Your task to perform on an android device: check google app version Image 0: 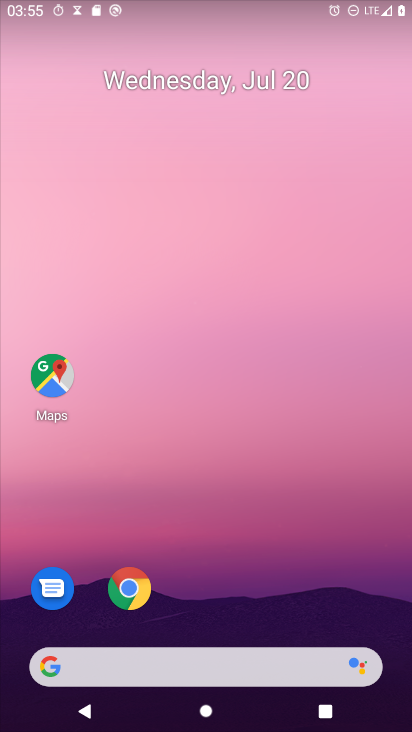
Step 0: drag from (226, 644) to (88, 63)
Your task to perform on an android device: check google app version Image 1: 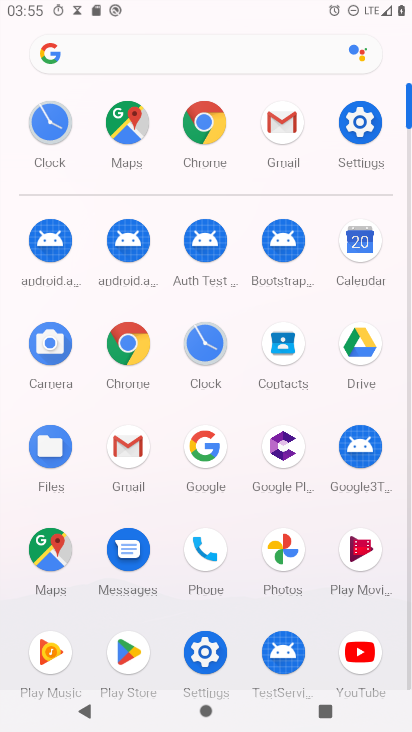
Step 1: click (206, 443)
Your task to perform on an android device: check google app version Image 2: 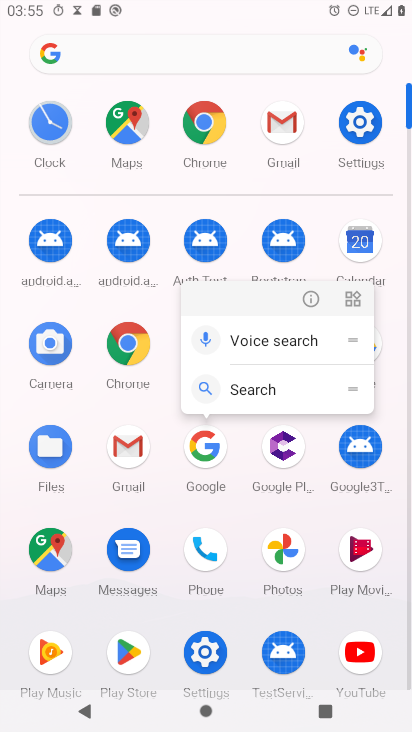
Step 2: click (305, 303)
Your task to perform on an android device: check google app version Image 3: 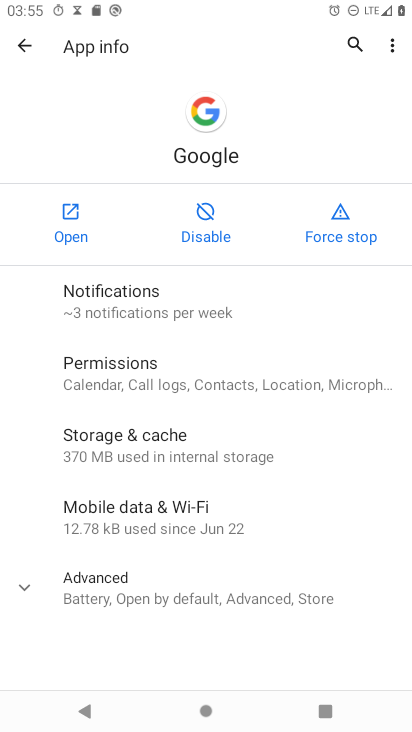
Step 3: click (128, 579)
Your task to perform on an android device: check google app version Image 4: 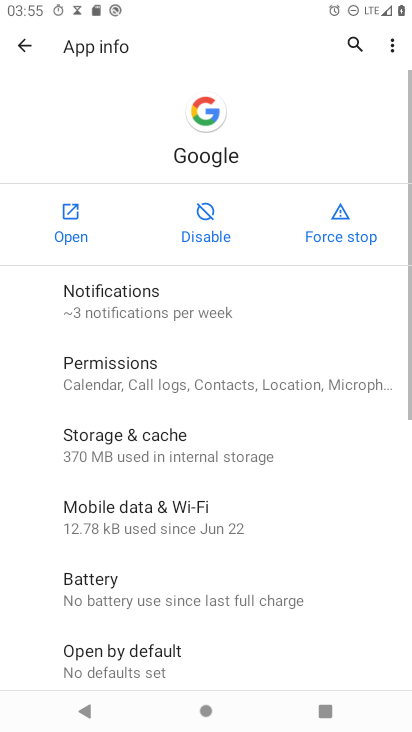
Step 4: task complete